Your task to perform on an android device: turn pop-ups off in chrome Image 0: 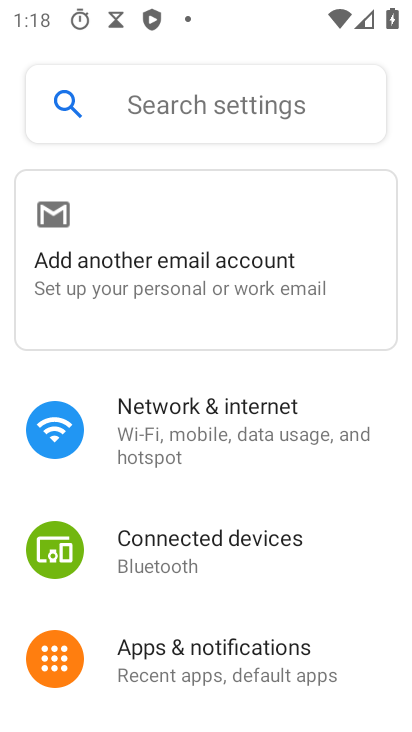
Step 0: press home button
Your task to perform on an android device: turn pop-ups off in chrome Image 1: 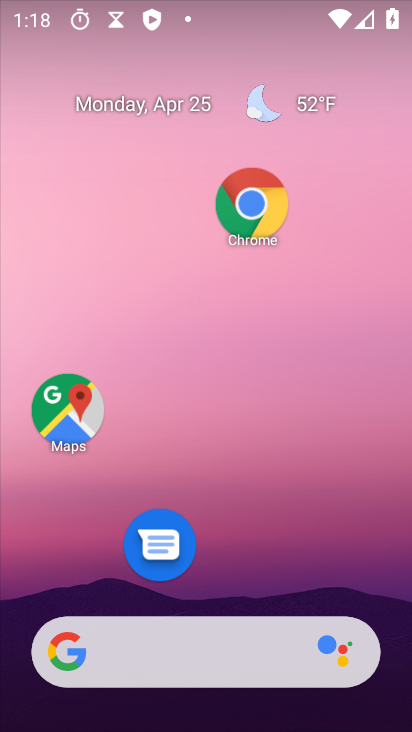
Step 1: drag from (277, 690) to (244, 354)
Your task to perform on an android device: turn pop-ups off in chrome Image 2: 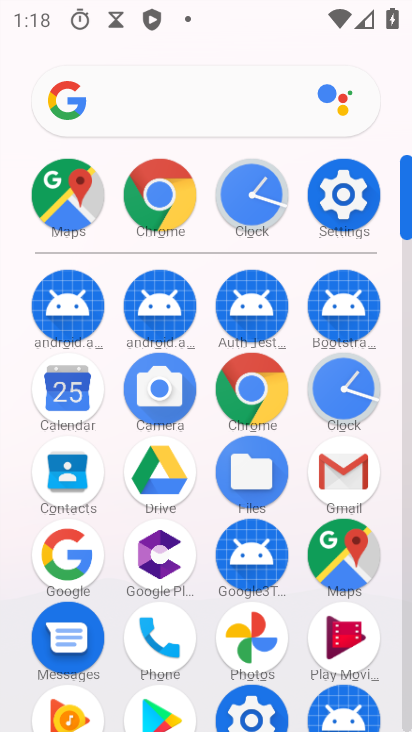
Step 2: click (245, 370)
Your task to perform on an android device: turn pop-ups off in chrome Image 3: 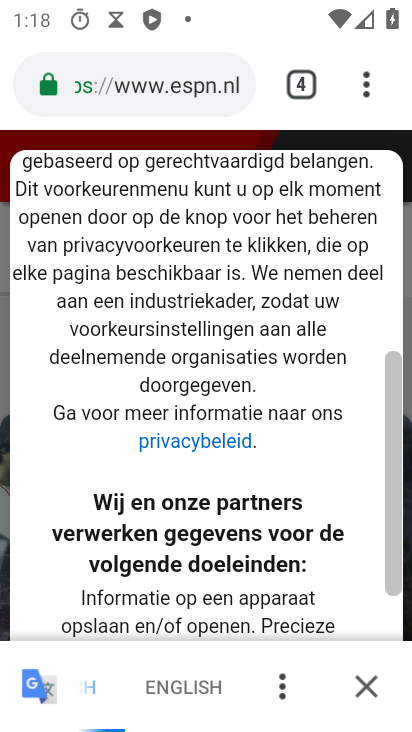
Step 3: click (364, 88)
Your task to perform on an android device: turn pop-ups off in chrome Image 4: 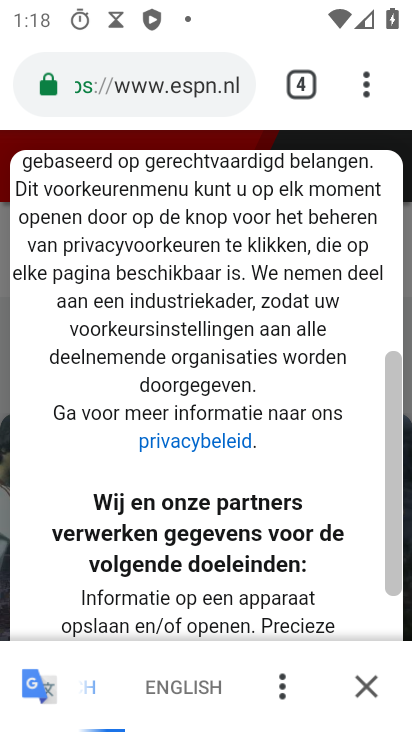
Step 4: click (364, 100)
Your task to perform on an android device: turn pop-ups off in chrome Image 5: 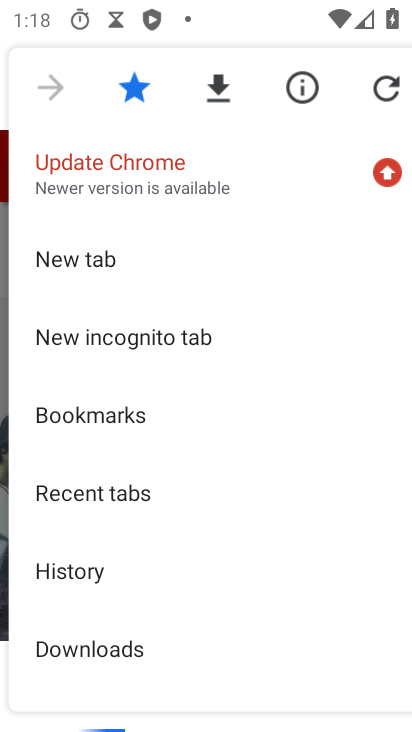
Step 5: drag from (92, 545) to (74, 294)
Your task to perform on an android device: turn pop-ups off in chrome Image 6: 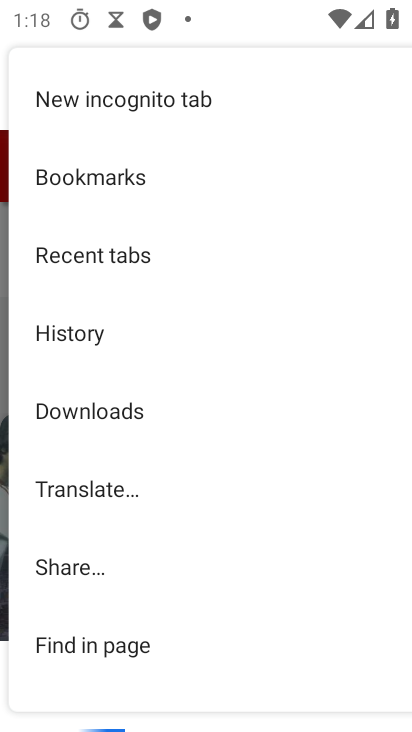
Step 6: drag from (138, 575) to (116, 454)
Your task to perform on an android device: turn pop-ups off in chrome Image 7: 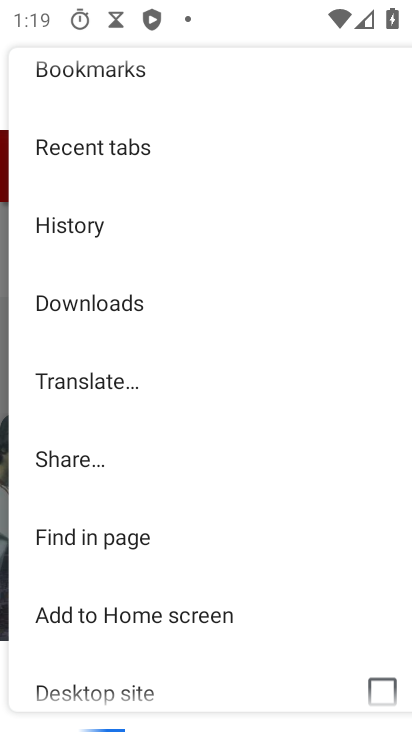
Step 7: drag from (133, 645) to (163, 454)
Your task to perform on an android device: turn pop-ups off in chrome Image 8: 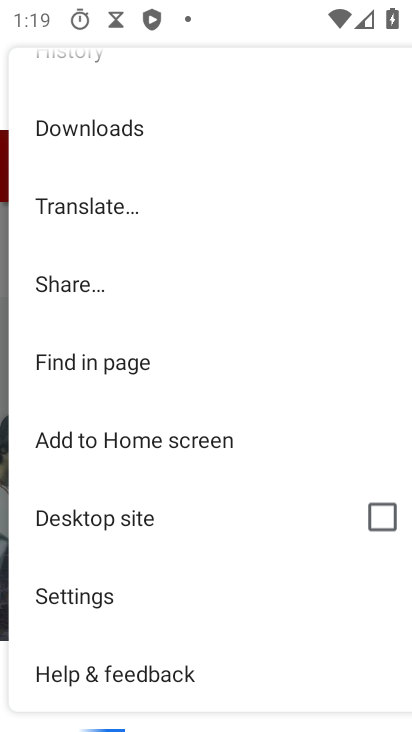
Step 8: click (93, 590)
Your task to perform on an android device: turn pop-ups off in chrome Image 9: 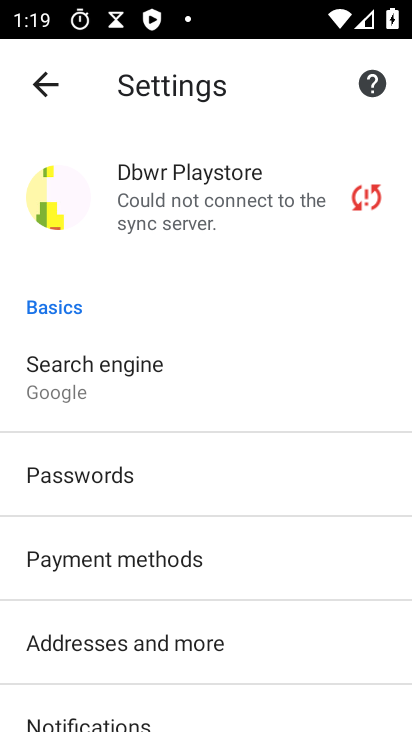
Step 9: drag from (111, 596) to (79, 412)
Your task to perform on an android device: turn pop-ups off in chrome Image 10: 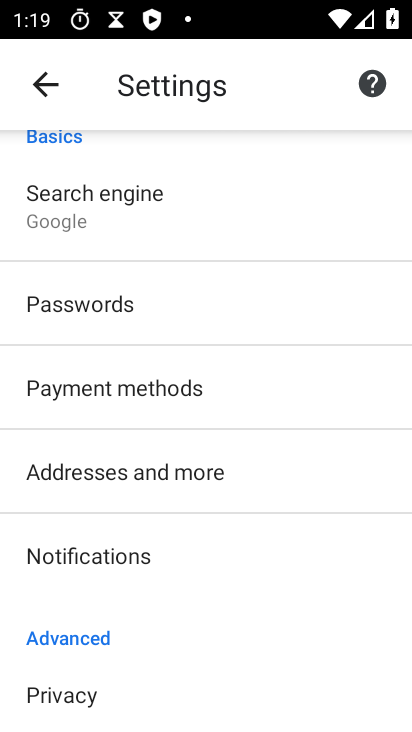
Step 10: drag from (105, 517) to (87, 409)
Your task to perform on an android device: turn pop-ups off in chrome Image 11: 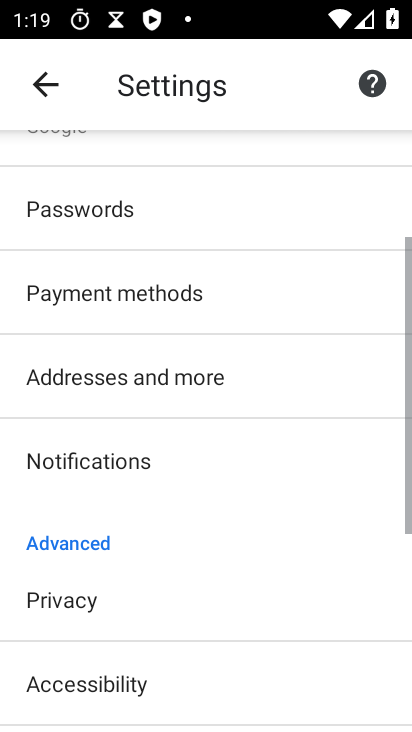
Step 11: drag from (125, 511) to (210, 291)
Your task to perform on an android device: turn pop-ups off in chrome Image 12: 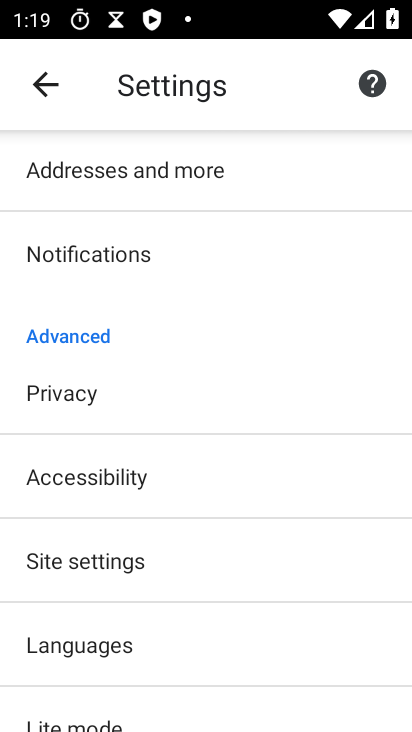
Step 12: click (114, 558)
Your task to perform on an android device: turn pop-ups off in chrome Image 13: 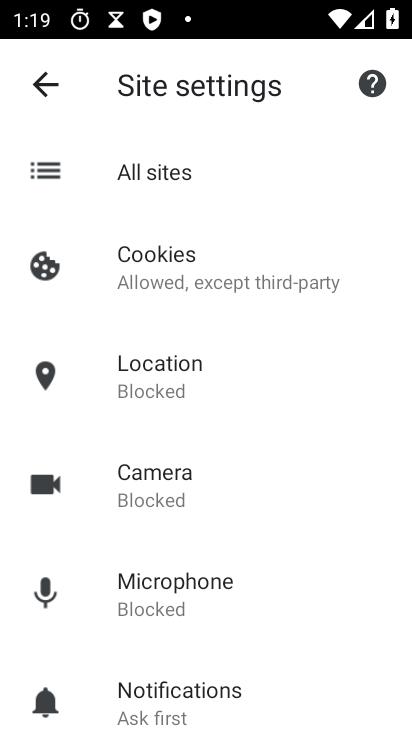
Step 13: drag from (199, 599) to (166, 315)
Your task to perform on an android device: turn pop-ups off in chrome Image 14: 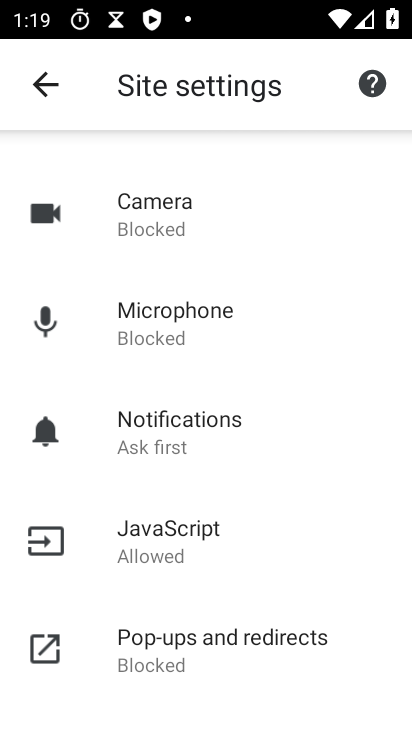
Step 14: click (162, 624)
Your task to perform on an android device: turn pop-ups off in chrome Image 15: 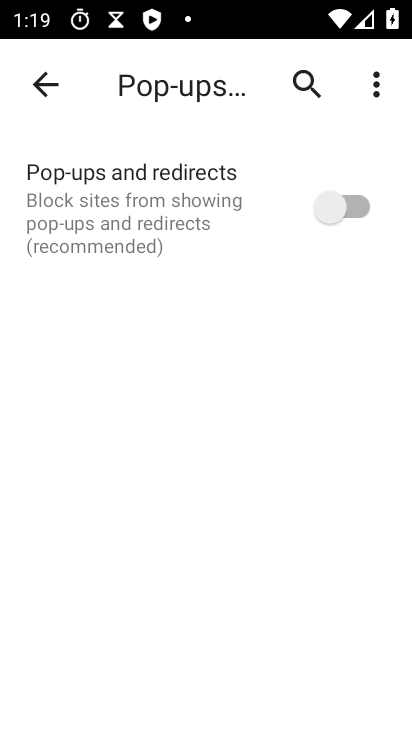
Step 15: click (262, 188)
Your task to perform on an android device: turn pop-ups off in chrome Image 16: 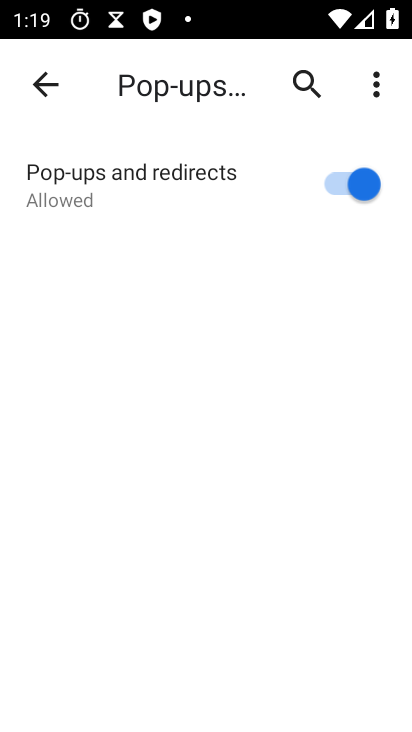
Step 16: click (262, 206)
Your task to perform on an android device: turn pop-ups off in chrome Image 17: 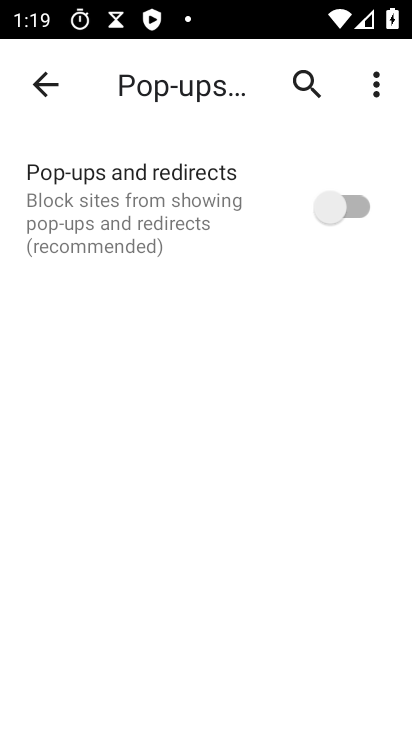
Step 17: task complete